Your task to perform on an android device: Open Google Chrome and open the bookmarks view Image 0: 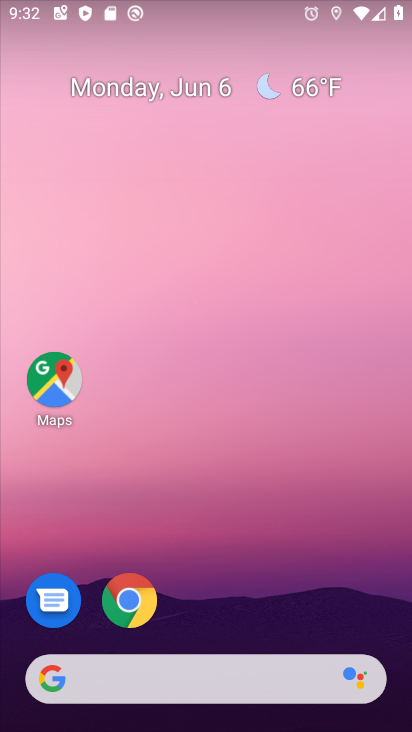
Step 0: press home button
Your task to perform on an android device: Open Google Chrome and open the bookmarks view Image 1: 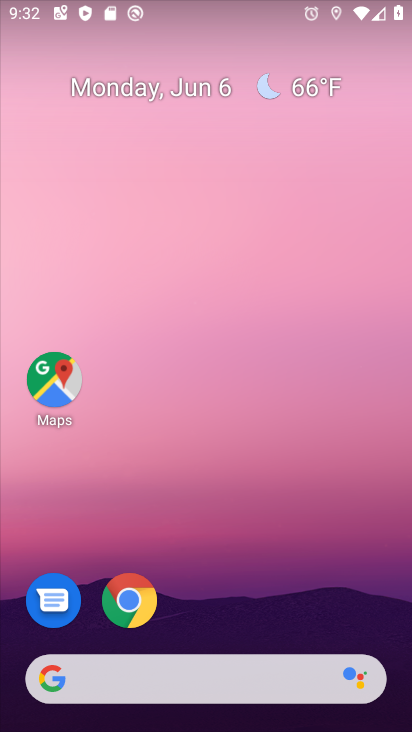
Step 1: click (116, 599)
Your task to perform on an android device: Open Google Chrome and open the bookmarks view Image 2: 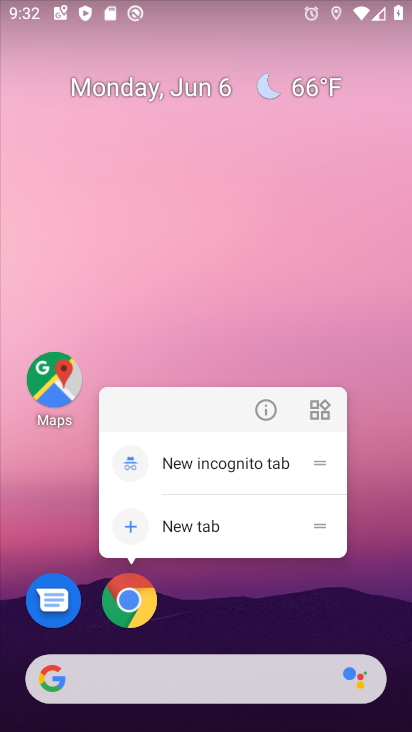
Step 2: click (146, 585)
Your task to perform on an android device: Open Google Chrome and open the bookmarks view Image 3: 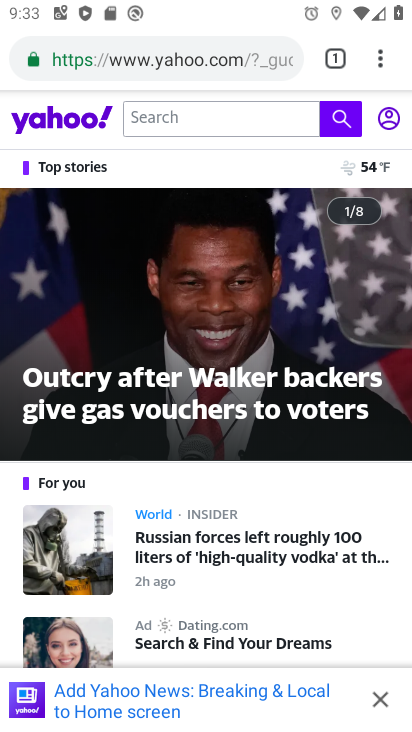
Step 3: click (379, 47)
Your task to perform on an android device: Open Google Chrome and open the bookmarks view Image 4: 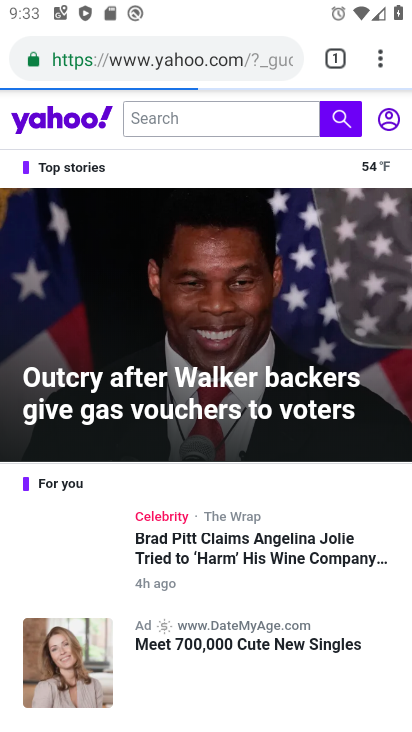
Step 4: click (376, 59)
Your task to perform on an android device: Open Google Chrome and open the bookmarks view Image 5: 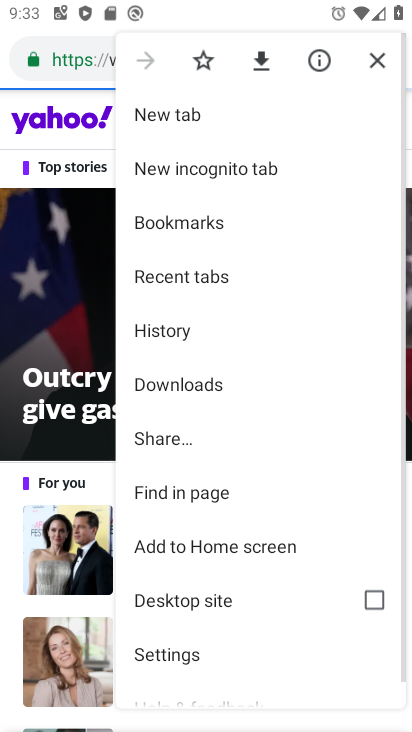
Step 5: click (229, 224)
Your task to perform on an android device: Open Google Chrome and open the bookmarks view Image 6: 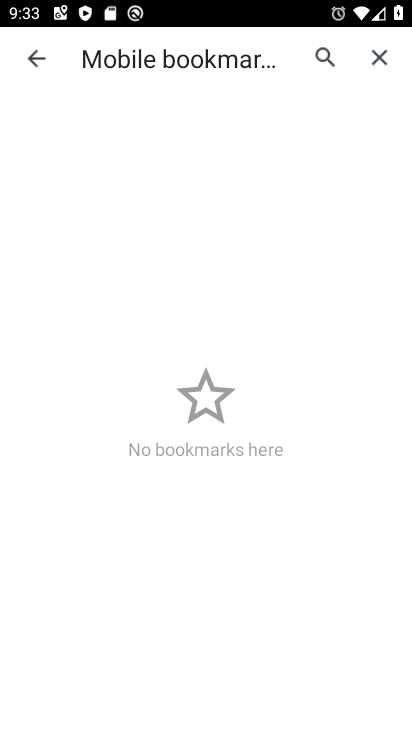
Step 6: task complete